Your task to perform on an android device: allow cookies in the chrome app Image 0: 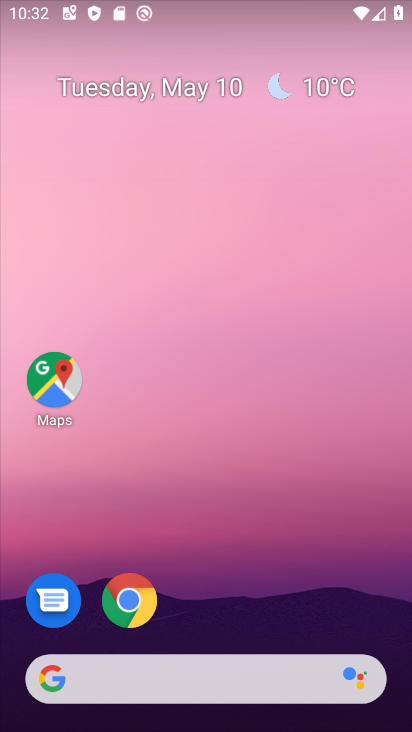
Step 0: click (141, 608)
Your task to perform on an android device: allow cookies in the chrome app Image 1: 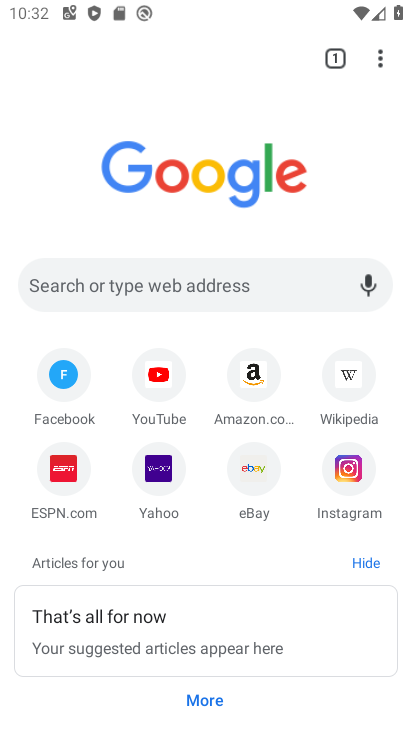
Step 1: click (381, 57)
Your task to perform on an android device: allow cookies in the chrome app Image 2: 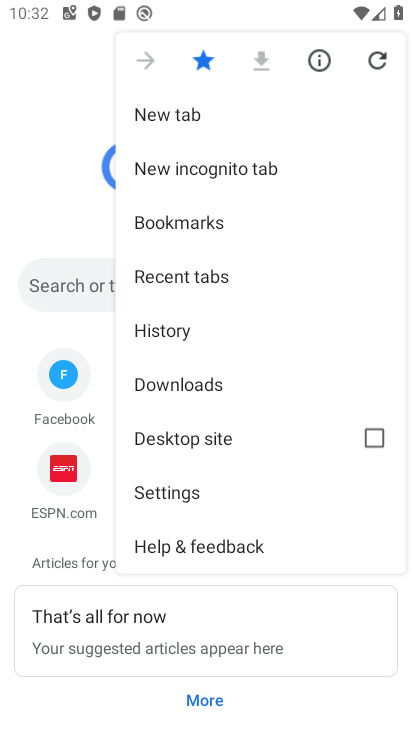
Step 2: click (221, 477)
Your task to perform on an android device: allow cookies in the chrome app Image 3: 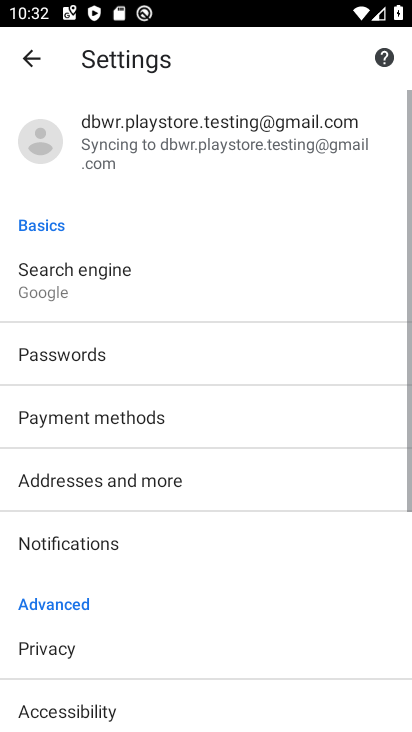
Step 3: drag from (147, 475) to (122, 236)
Your task to perform on an android device: allow cookies in the chrome app Image 4: 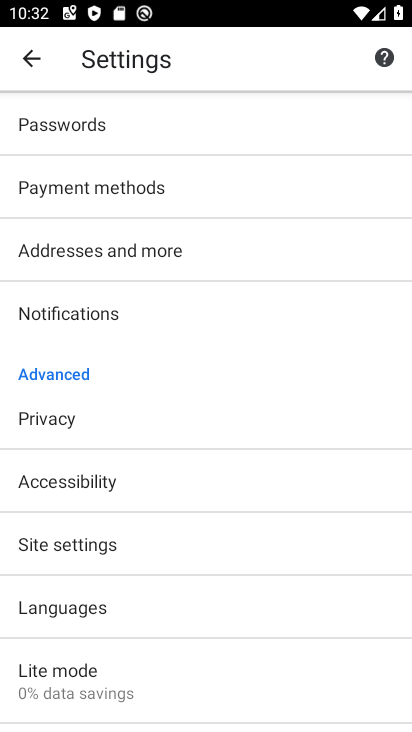
Step 4: click (98, 549)
Your task to perform on an android device: allow cookies in the chrome app Image 5: 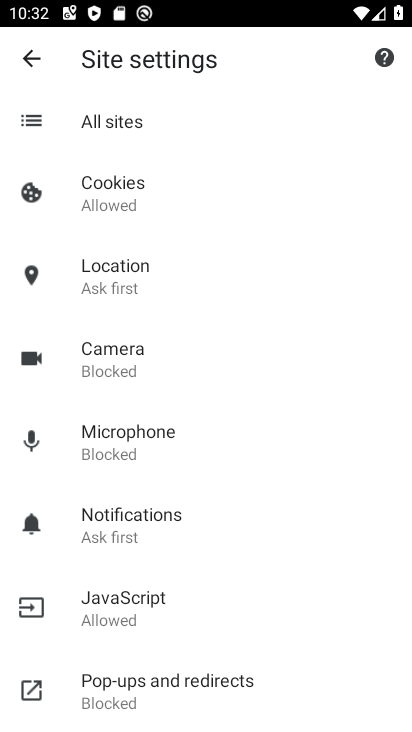
Step 5: click (157, 181)
Your task to perform on an android device: allow cookies in the chrome app Image 6: 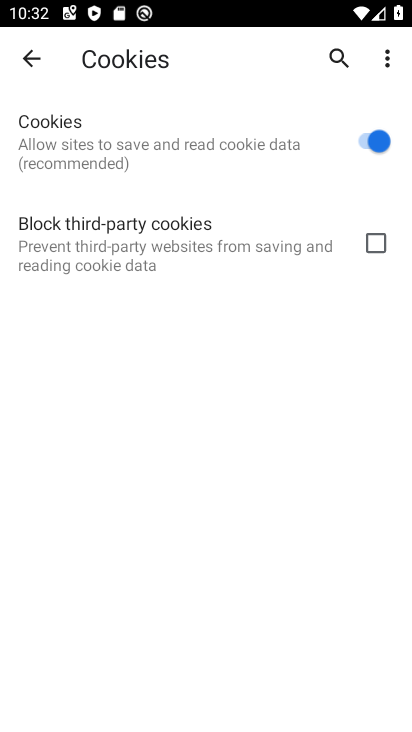
Step 6: task complete